Your task to perform on an android device: turn off notifications in google photos Image 0: 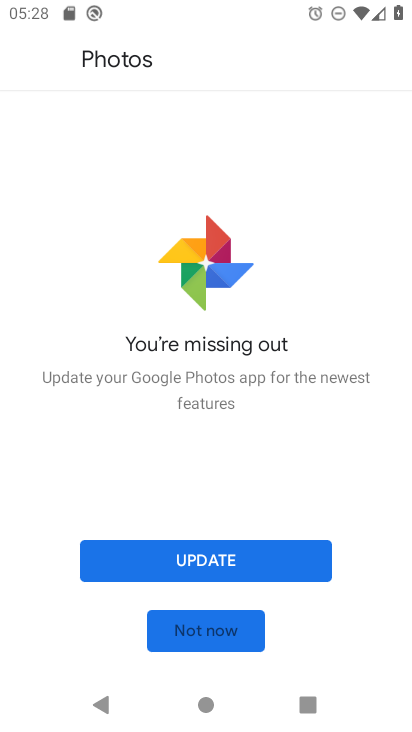
Step 0: press home button
Your task to perform on an android device: turn off notifications in google photos Image 1: 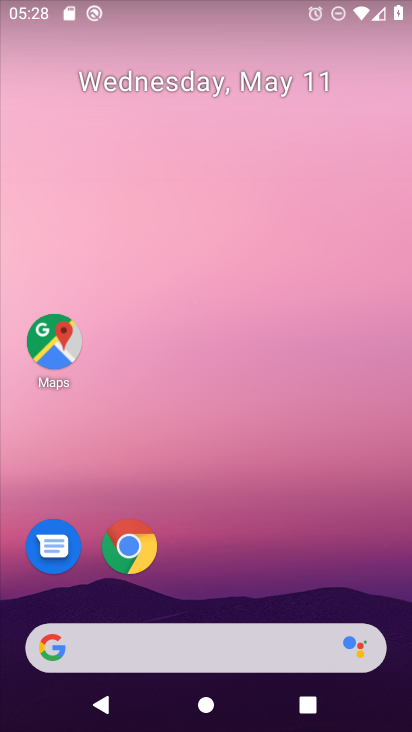
Step 1: drag from (182, 623) to (260, 18)
Your task to perform on an android device: turn off notifications in google photos Image 2: 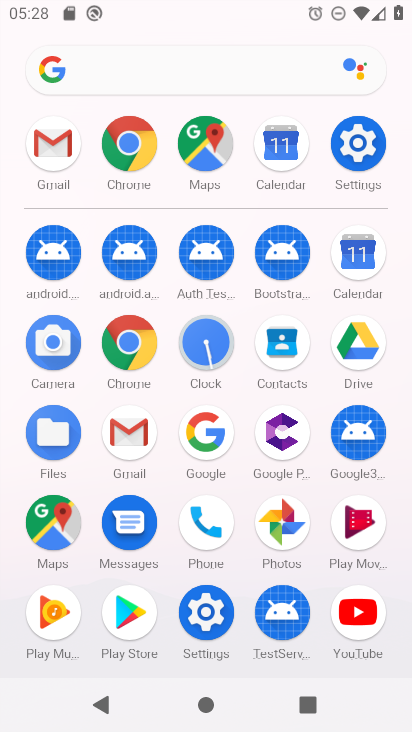
Step 2: click (297, 531)
Your task to perform on an android device: turn off notifications in google photos Image 3: 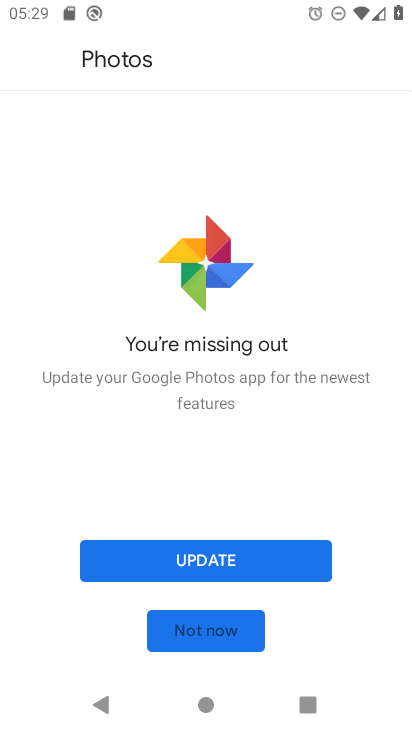
Step 3: click (219, 562)
Your task to perform on an android device: turn off notifications in google photos Image 4: 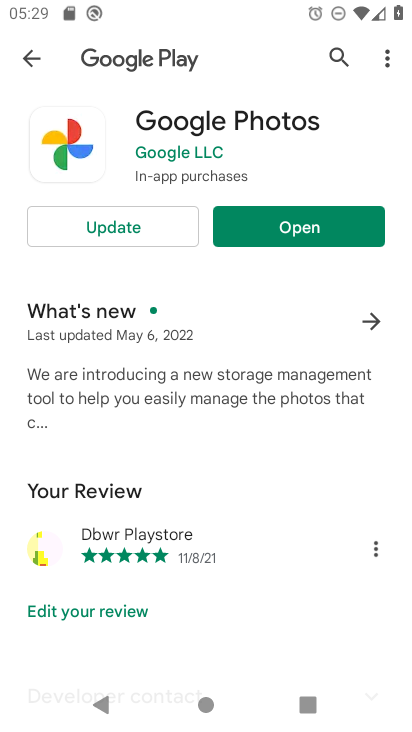
Step 4: press home button
Your task to perform on an android device: turn off notifications in google photos Image 5: 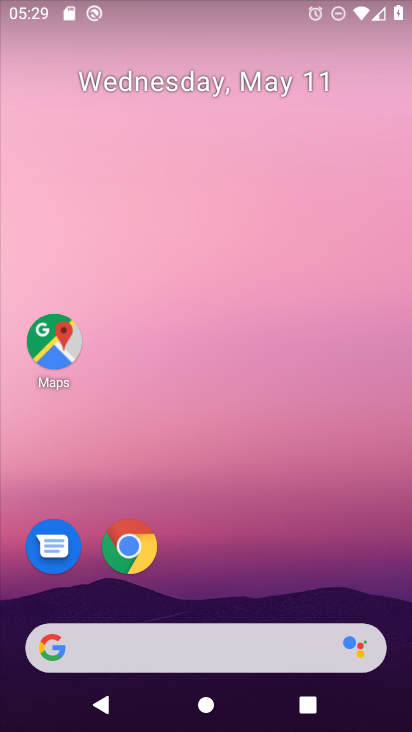
Step 5: drag from (354, 681) to (410, 172)
Your task to perform on an android device: turn off notifications in google photos Image 6: 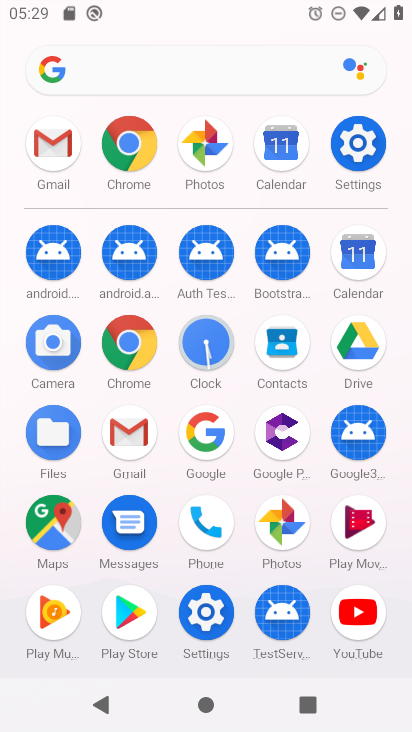
Step 6: click (268, 518)
Your task to perform on an android device: turn off notifications in google photos Image 7: 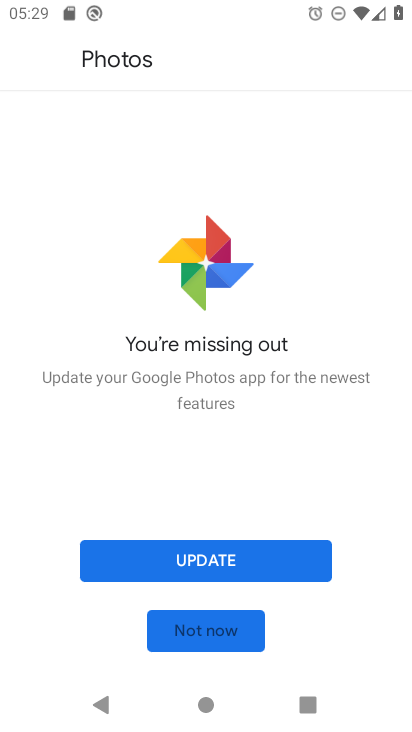
Step 7: drag from (256, 570) to (178, 570)
Your task to perform on an android device: turn off notifications in google photos Image 8: 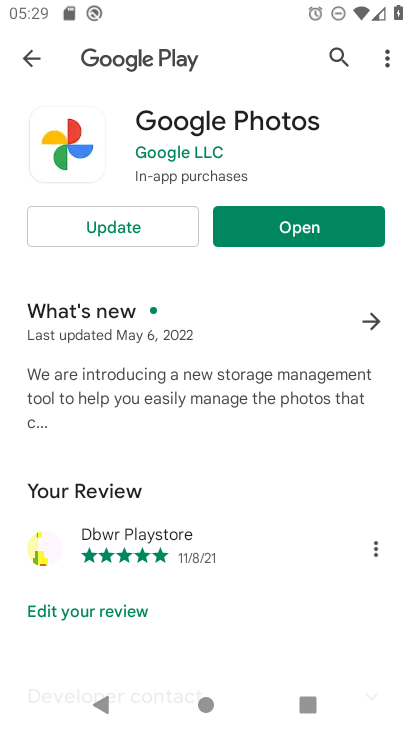
Step 8: click (157, 232)
Your task to perform on an android device: turn off notifications in google photos Image 9: 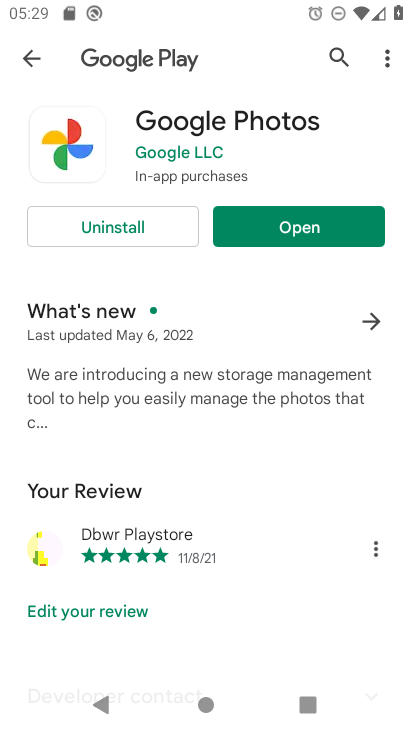
Step 9: click (322, 226)
Your task to perform on an android device: turn off notifications in google photos Image 10: 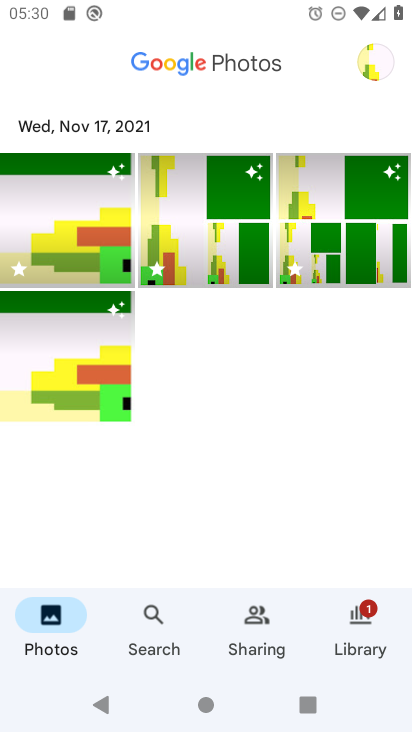
Step 10: click (373, 66)
Your task to perform on an android device: turn off notifications in google photos Image 11: 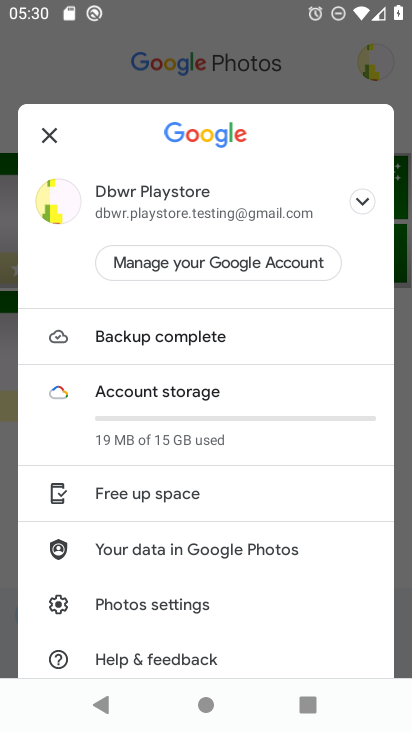
Step 11: drag from (180, 570) to (237, 265)
Your task to perform on an android device: turn off notifications in google photos Image 12: 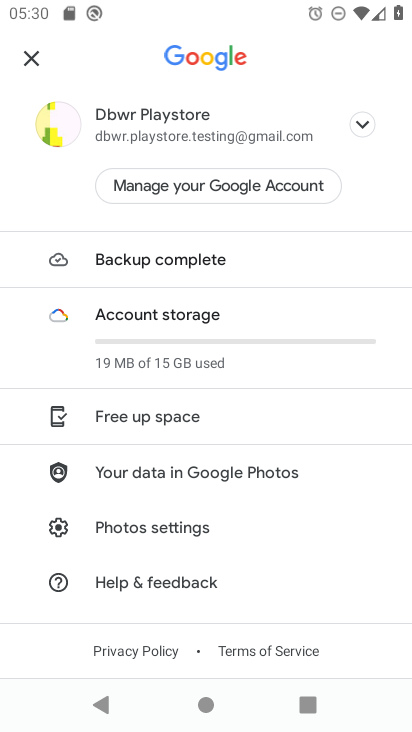
Step 12: click (224, 134)
Your task to perform on an android device: turn off notifications in google photos Image 13: 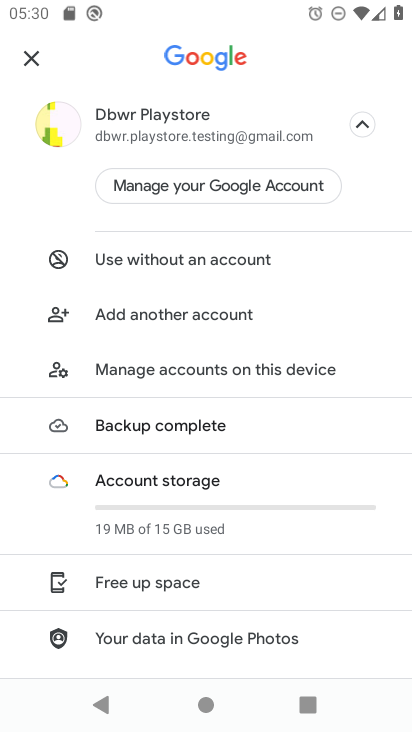
Step 13: drag from (293, 655) to (319, 261)
Your task to perform on an android device: turn off notifications in google photos Image 14: 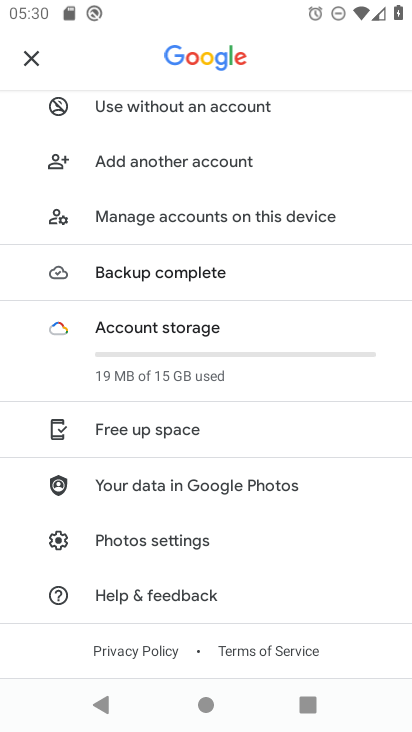
Step 14: click (164, 531)
Your task to perform on an android device: turn off notifications in google photos Image 15: 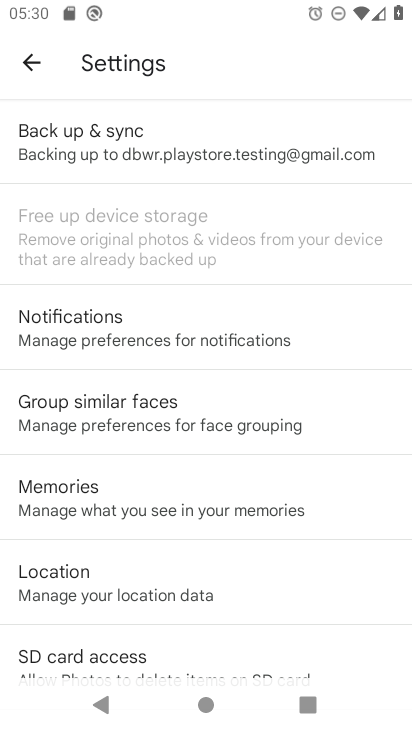
Step 15: click (147, 333)
Your task to perform on an android device: turn off notifications in google photos Image 16: 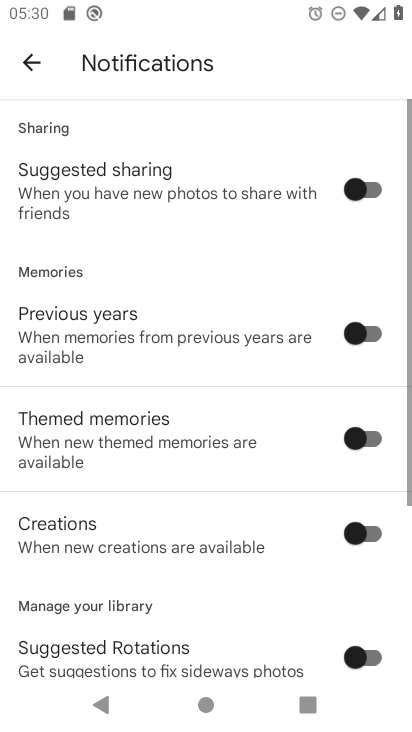
Step 16: drag from (213, 596) to (215, 128)
Your task to perform on an android device: turn off notifications in google photos Image 17: 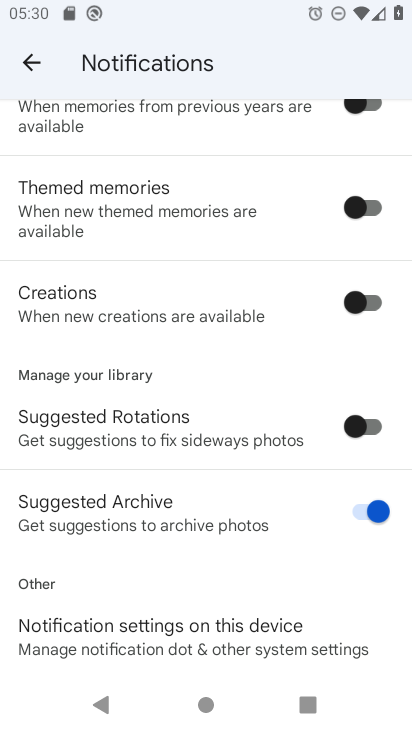
Step 17: click (236, 635)
Your task to perform on an android device: turn off notifications in google photos Image 18: 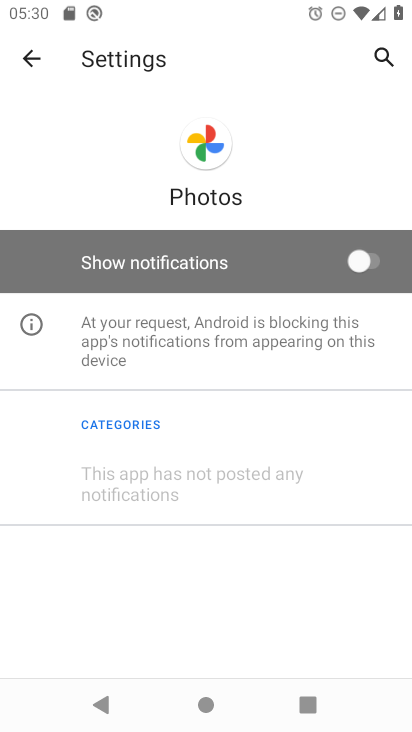
Step 18: task complete